Your task to perform on an android device: turn on javascript in the chrome app Image 0: 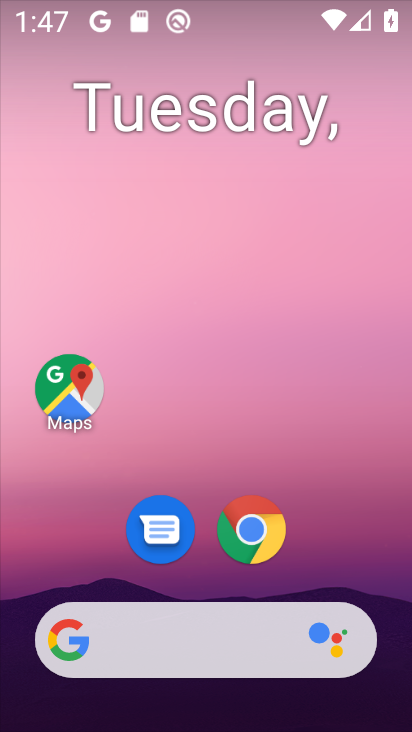
Step 0: click (256, 528)
Your task to perform on an android device: turn on javascript in the chrome app Image 1: 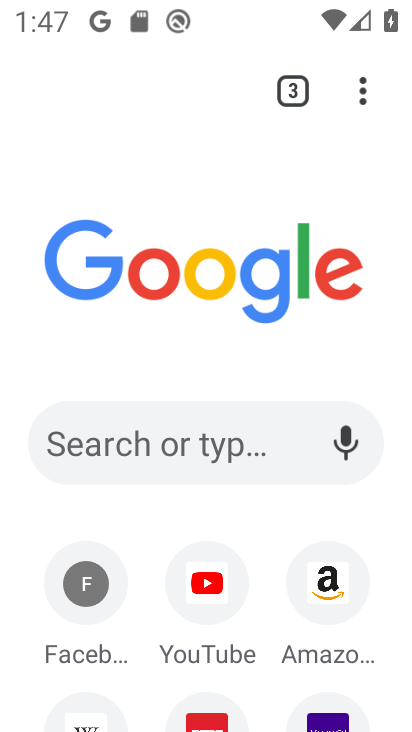
Step 1: click (359, 89)
Your task to perform on an android device: turn on javascript in the chrome app Image 2: 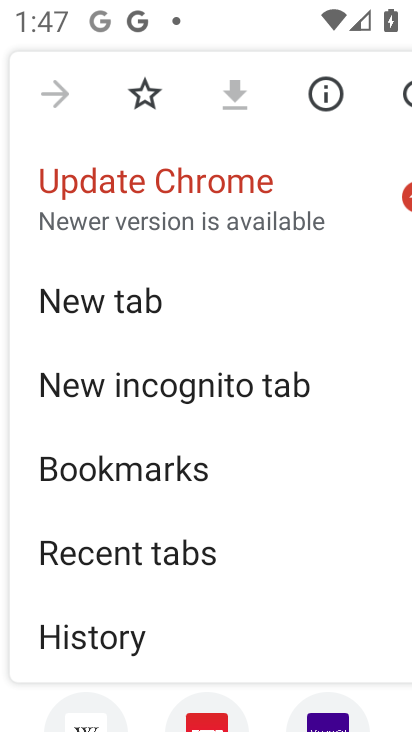
Step 2: drag from (316, 652) to (306, 256)
Your task to perform on an android device: turn on javascript in the chrome app Image 3: 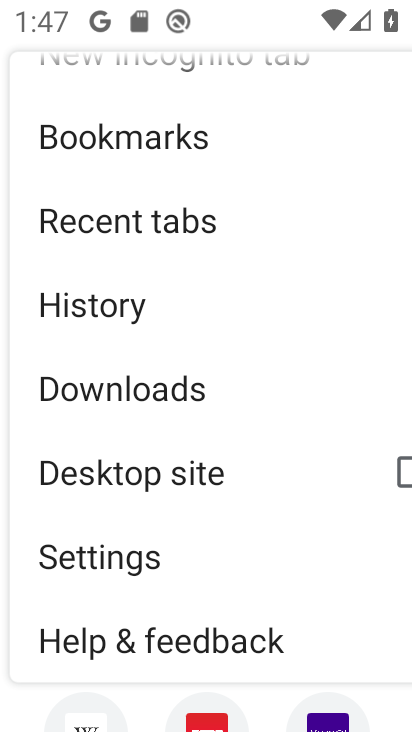
Step 3: click (53, 560)
Your task to perform on an android device: turn on javascript in the chrome app Image 4: 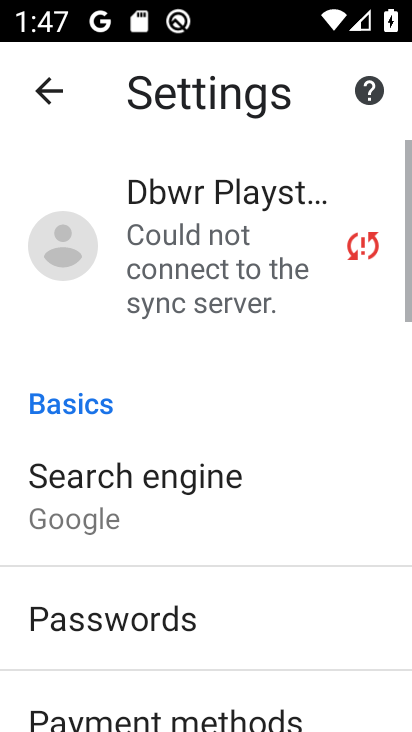
Step 4: drag from (276, 526) to (308, 207)
Your task to perform on an android device: turn on javascript in the chrome app Image 5: 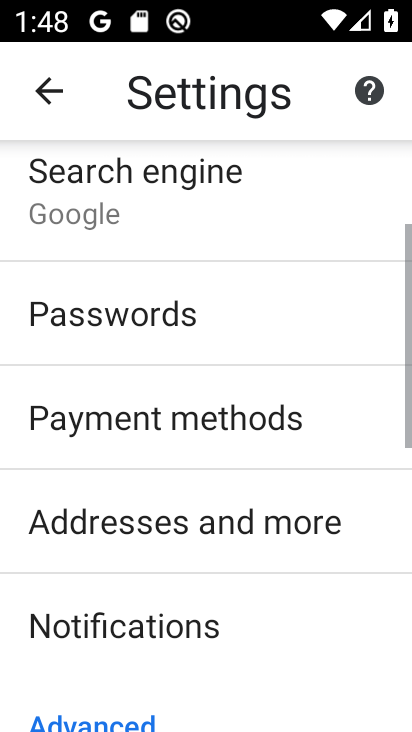
Step 5: drag from (324, 562) to (349, 224)
Your task to perform on an android device: turn on javascript in the chrome app Image 6: 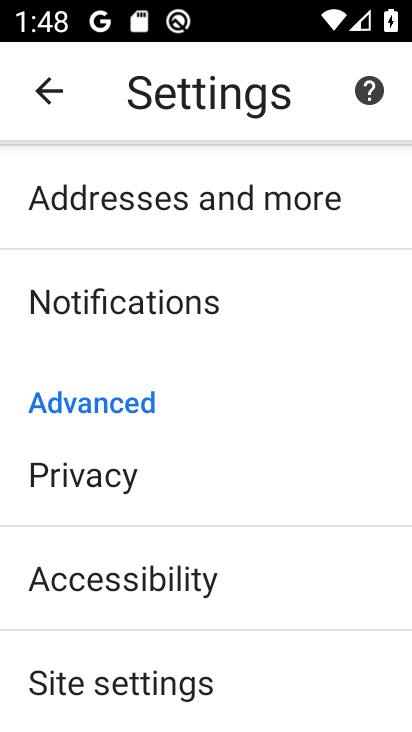
Step 6: drag from (310, 636) to (294, 292)
Your task to perform on an android device: turn on javascript in the chrome app Image 7: 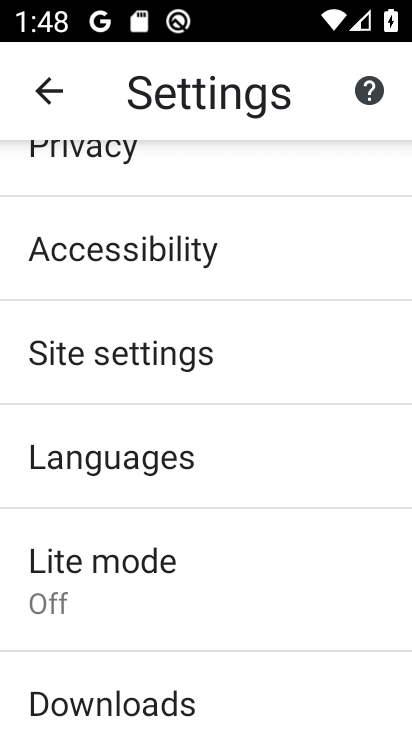
Step 7: drag from (287, 687) to (274, 358)
Your task to perform on an android device: turn on javascript in the chrome app Image 8: 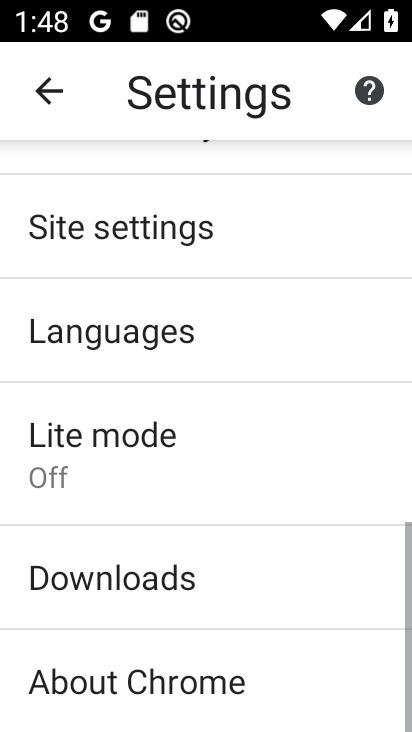
Step 8: click (297, 350)
Your task to perform on an android device: turn on javascript in the chrome app Image 9: 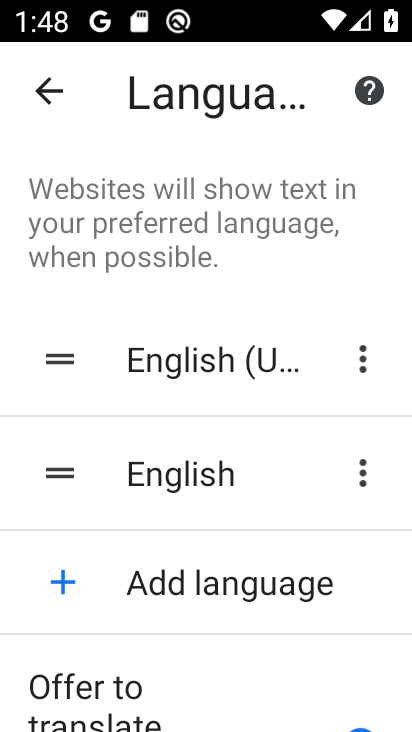
Step 9: press back button
Your task to perform on an android device: turn on javascript in the chrome app Image 10: 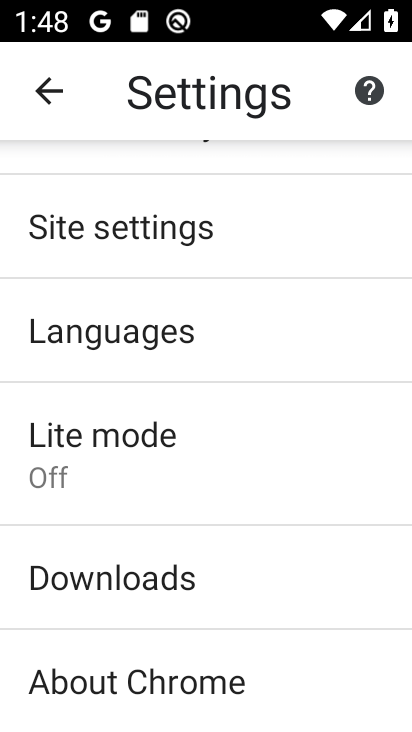
Step 10: click (88, 241)
Your task to perform on an android device: turn on javascript in the chrome app Image 11: 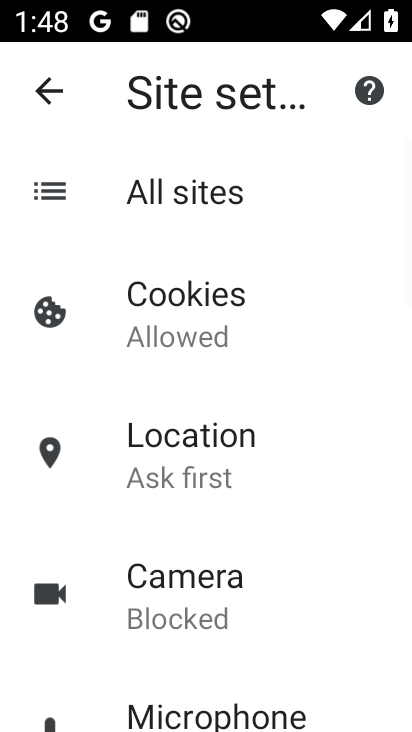
Step 11: drag from (338, 419) to (338, 236)
Your task to perform on an android device: turn on javascript in the chrome app Image 12: 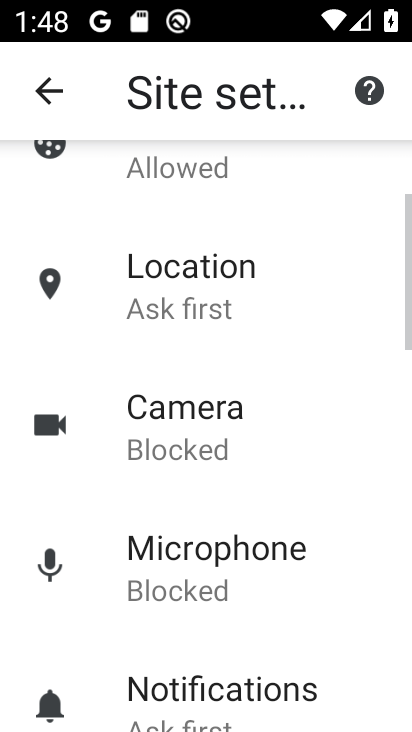
Step 12: drag from (337, 467) to (355, 248)
Your task to perform on an android device: turn on javascript in the chrome app Image 13: 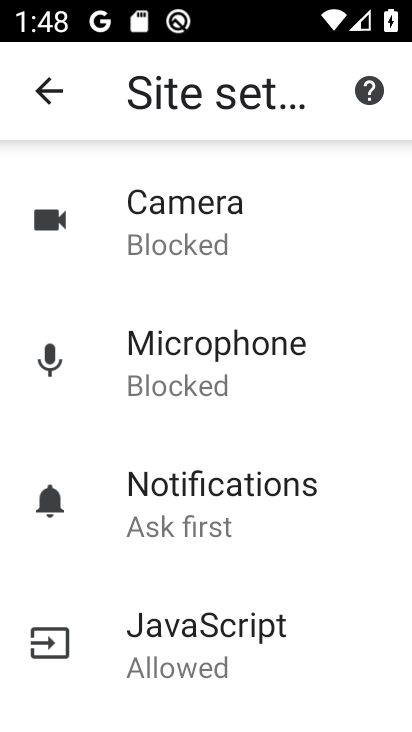
Step 13: click (164, 646)
Your task to perform on an android device: turn on javascript in the chrome app Image 14: 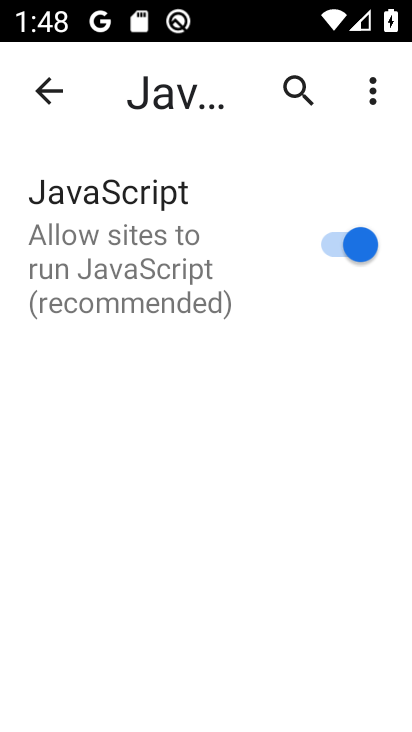
Step 14: task complete